Your task to perform on an android device: Go to Reddit.com Image 0: 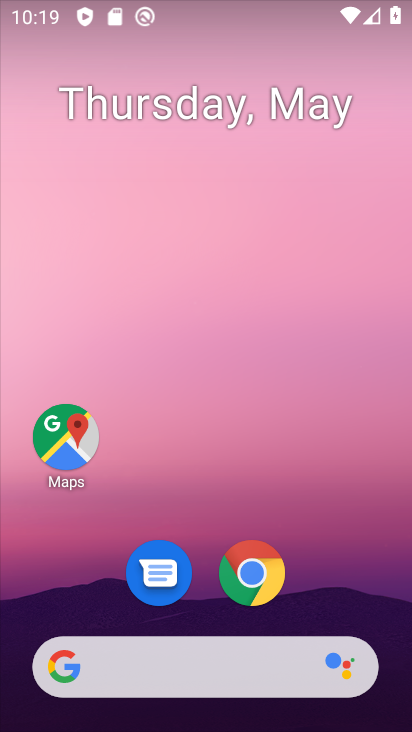
Step 0: drag from (304, 545) to (367, 161)
Your task to perform on an android device: Go to Reddit.com Image 1: 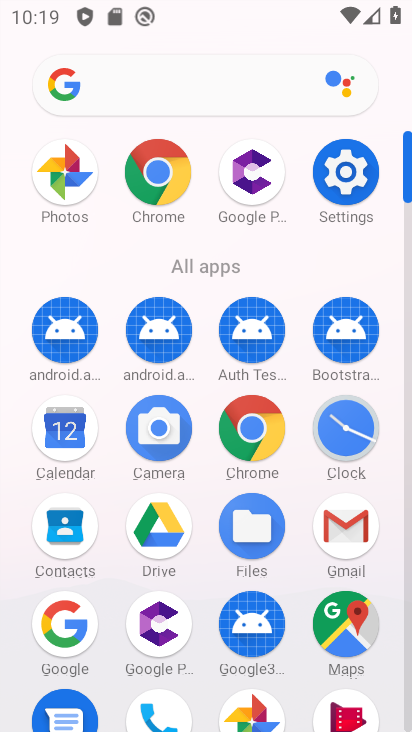
Step 1: click (174, 201)
Your task to perform on an android device: Go to Reddit.com Image 2: 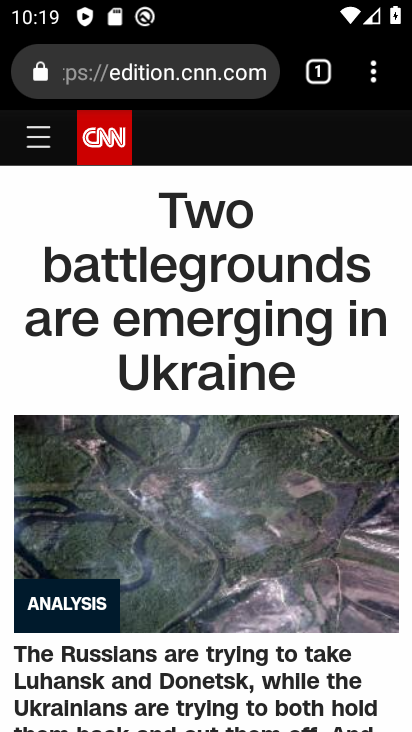
Step 2: click (184, 78)
Your task to perform on an android device: Go to Reddit.com Image 3: 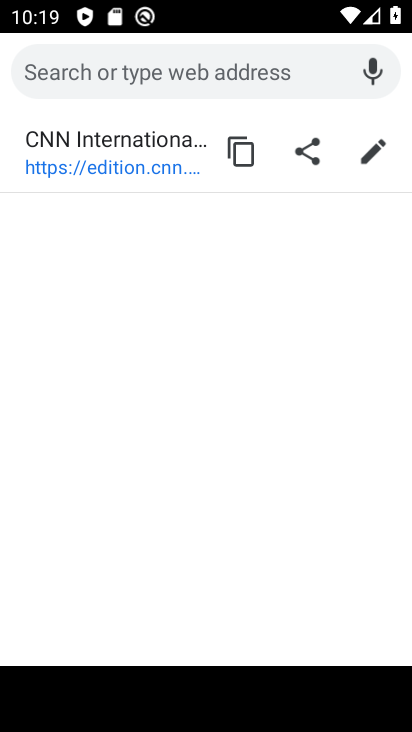
Step 3: type "reddit.com"
Your task to perform on an android device: Go to Reddit.com Image 4: 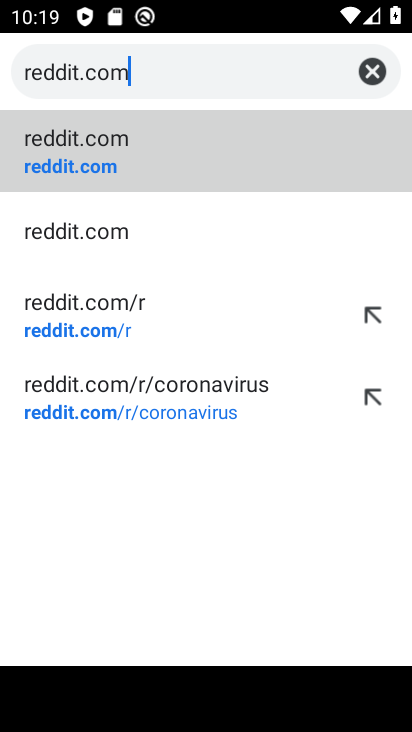
Step 4: click (141, 159)
Your task to perform on an android device: Go to Reddit.com Image 5: 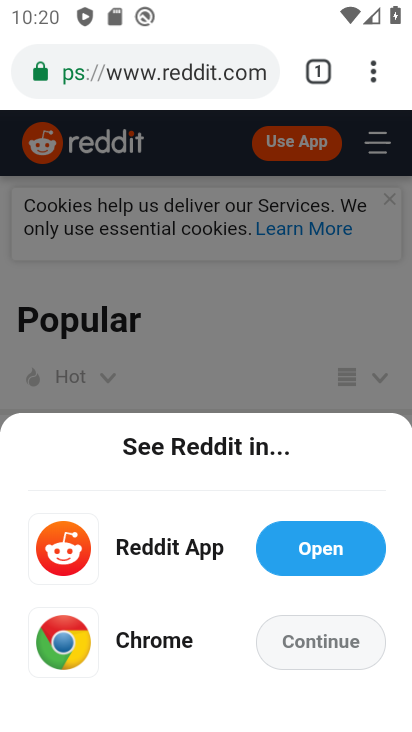
Step 5: task complete